Your task to perform on an android device: open a new tab in the chrome app Image 0: 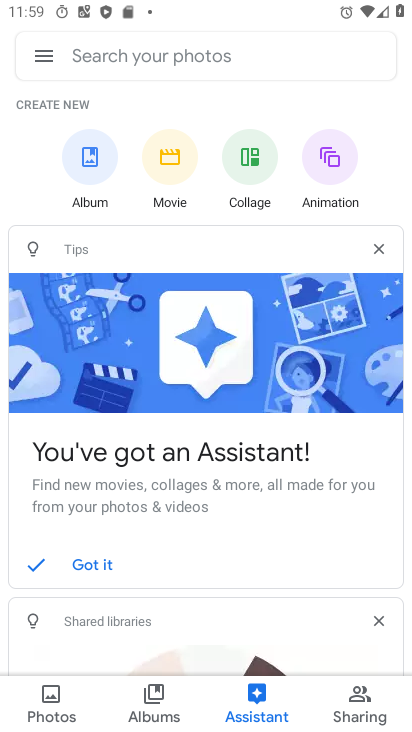
Step 0: press home button
Your task to perform on an android device: open a new tab in the chrome app Image 1: 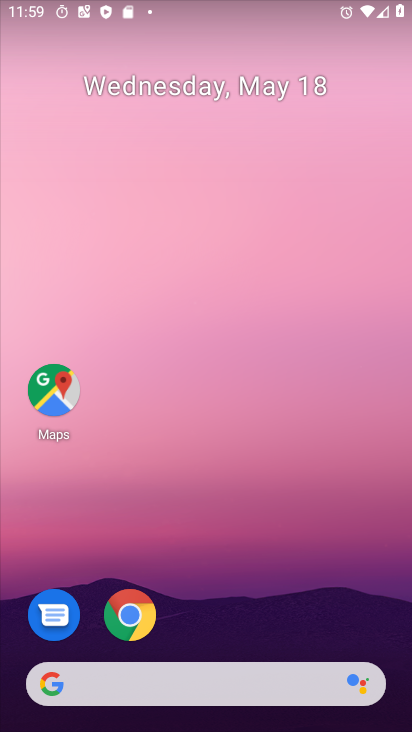
Step 1: click (132, 618)
Your task to perform on an android device: open a new tab in the chrome app Image 2: 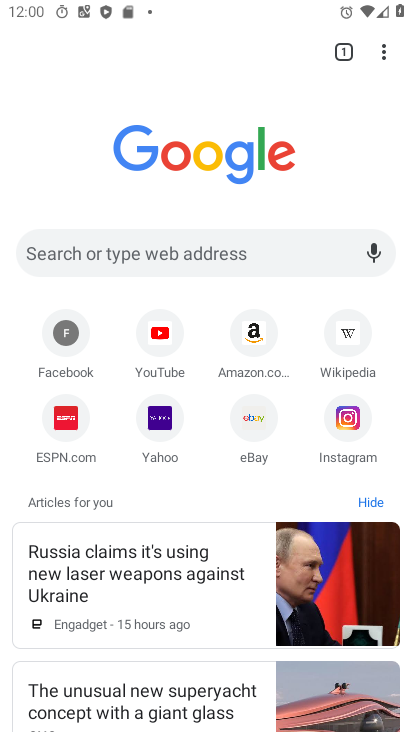
Step 2: click (342, 49)
Your task to perform on an android device: open a new tab in the chrome app Image 3: 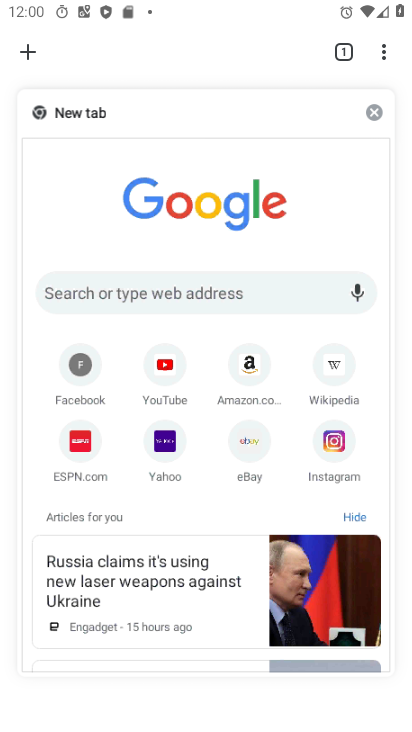
Step 3: click (28, 56)
Your task to perform on an android device: open a new tab in the chrome app Image 4: 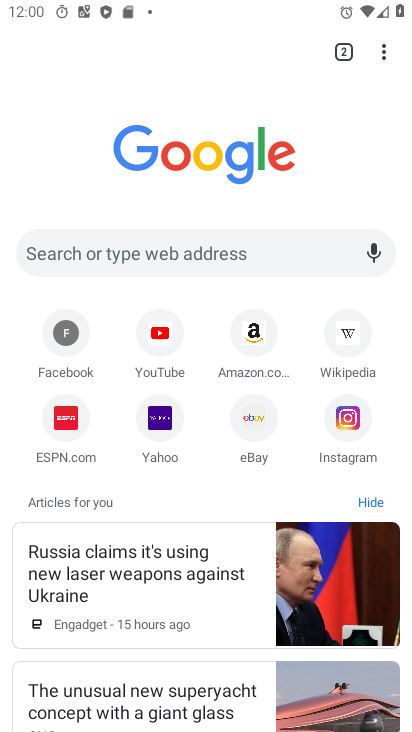
Step 4: click (380, 51)
Your task to perform on an android device: open a new tab in the chrome app Image 5: 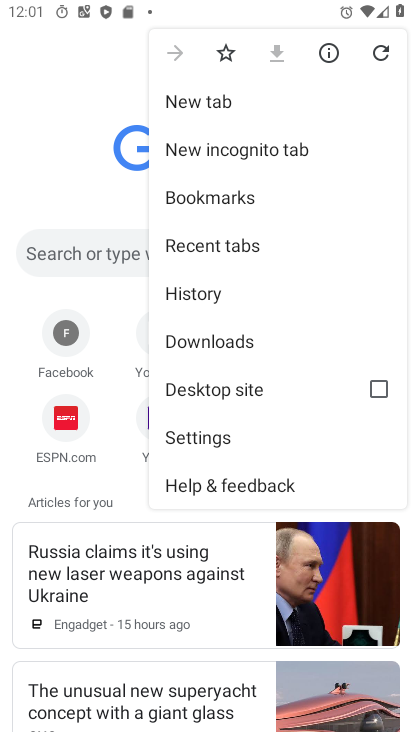
Step 5: click (385, 55)
Your task to perform on an android device: open a new tab in the chrome app Image 6: 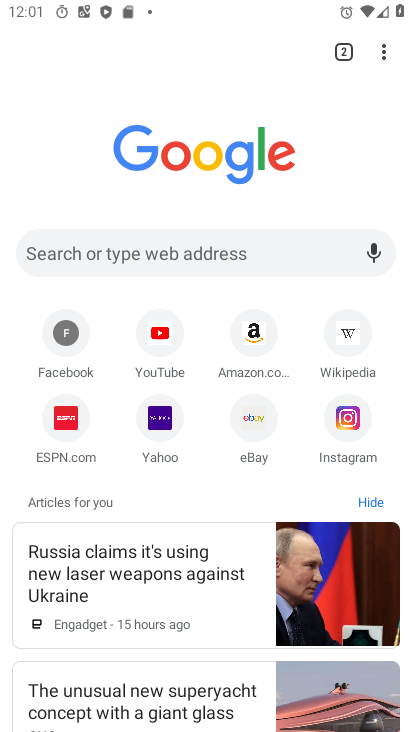
Step 6: task complete